Your task to perform on an android device: Open calendar and show me the third week of next month Image 0: 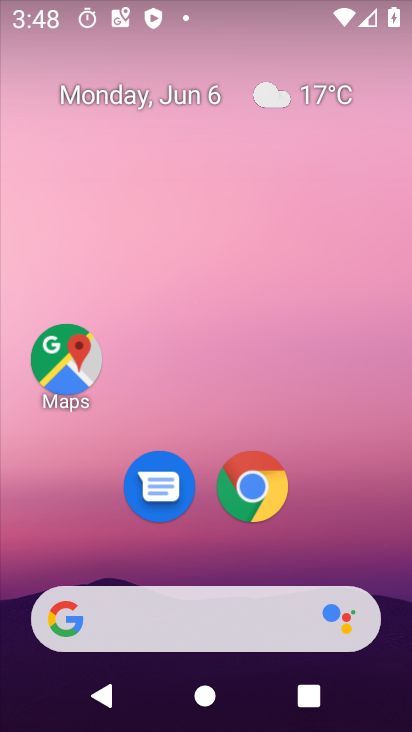
Step 0: drag from (315, 495) to (310, 6)
Your task to perform on an android device: Open calendar and show me the third week of next month Image 1: 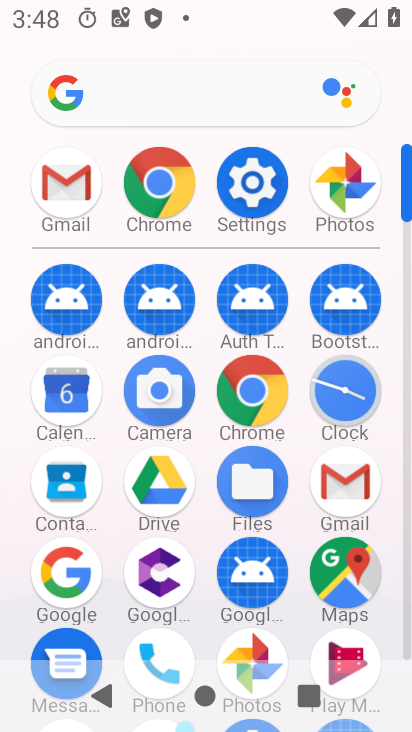
Step 1: click (62, 394)
Your task to perform on an android device: Open calendar and show me the third week of next month Image 2: 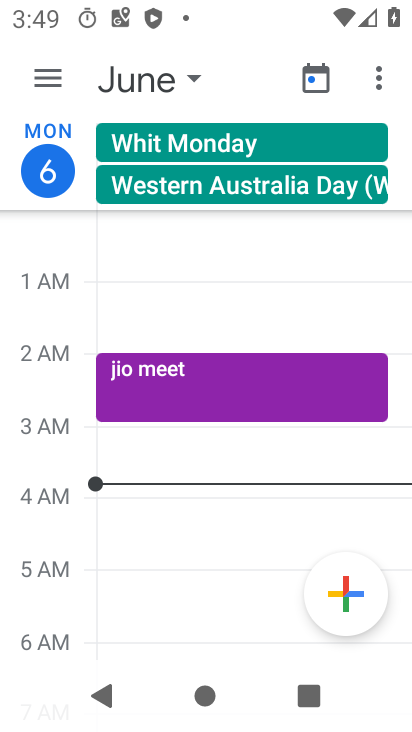
Step 2: click (135, 101)
Your task to perform on an android device: Open calendar and show me the third week of next month Image 3: 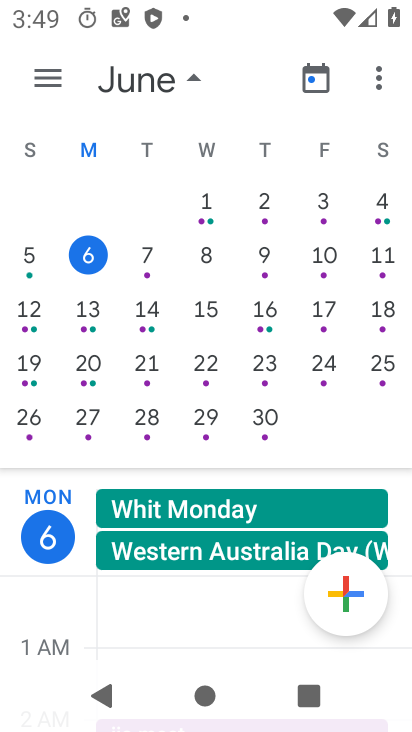
Step 3: drag from (372, 244) to (59, 248)
Your task to perform on an android device: Open calendar and show me the third week of next month Image 4: 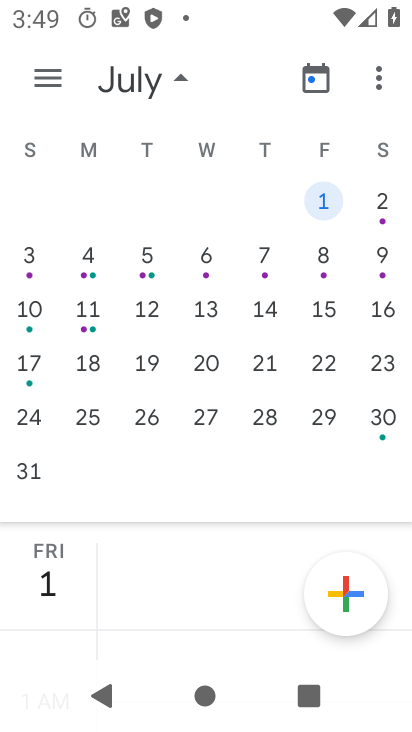
Step 4: click (28, 367)
Your task to perform on an android device: Open calendar and show me the third week of next month Image 5: 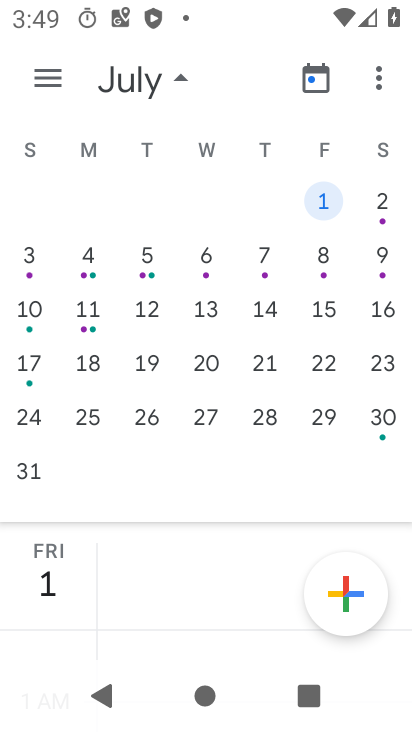
Step 5: click (45, 72)
Your task to perform on an android device: Open calendar and show me the third week of next month Image 6: 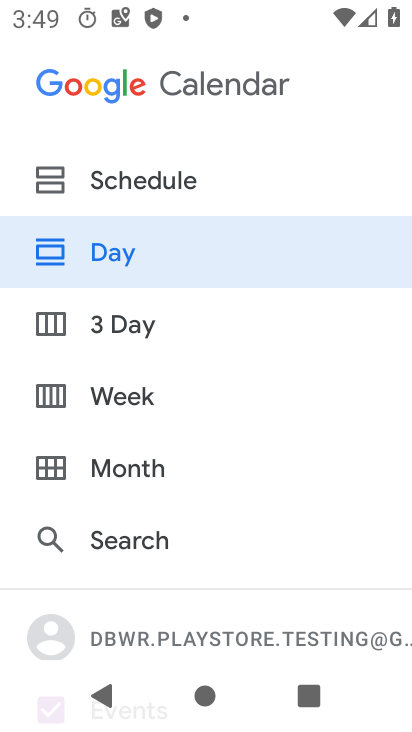
Step 6: click (135, 393)
Your task to perform on an android device: Open calendar and show me the third week of next month Image 7: 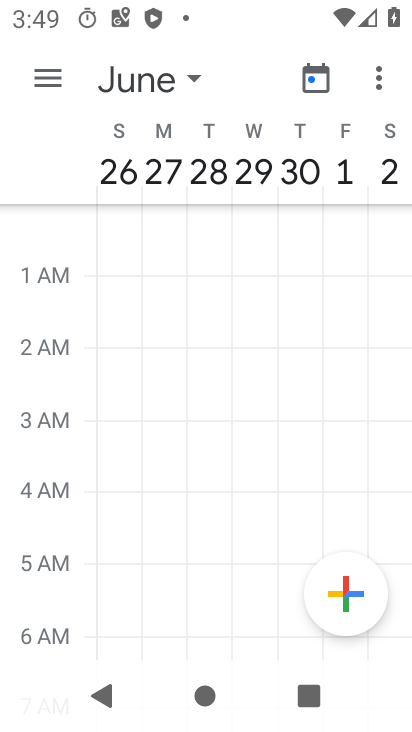
Step 7: click (133, 76)
Your task to perform on an android device: Open calendar and show me the third week of next month Image 8: 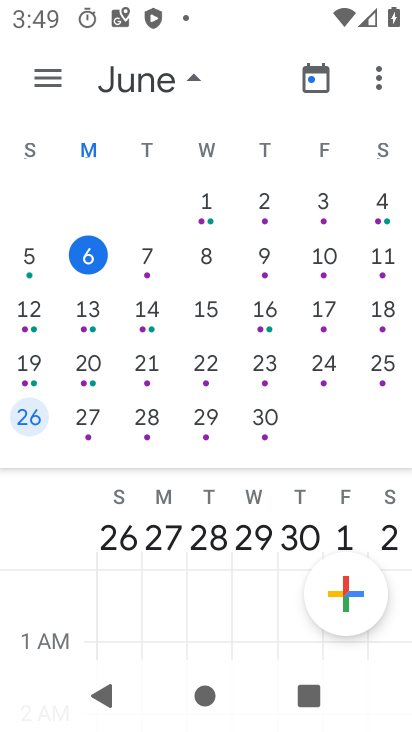
Step 8: click (40, 348)
Your task to perform on an android device: Open calendar and show me the third week of next month Image 9: 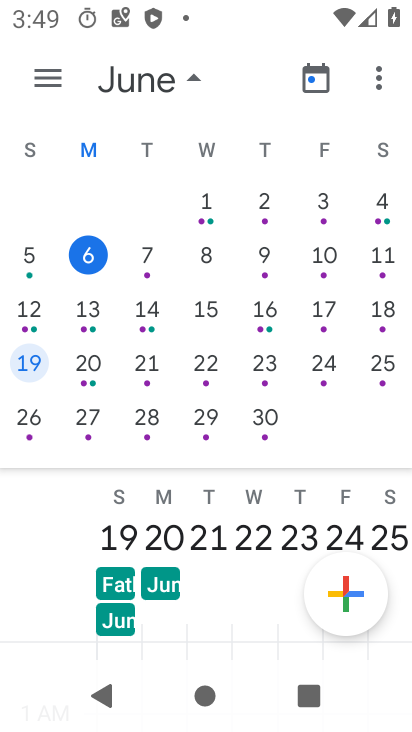
Step 9: task complete